Your task to perform on an android device: Search for "beats solo 3" on costco, select the first entry, and add it to the cart. Image 0: 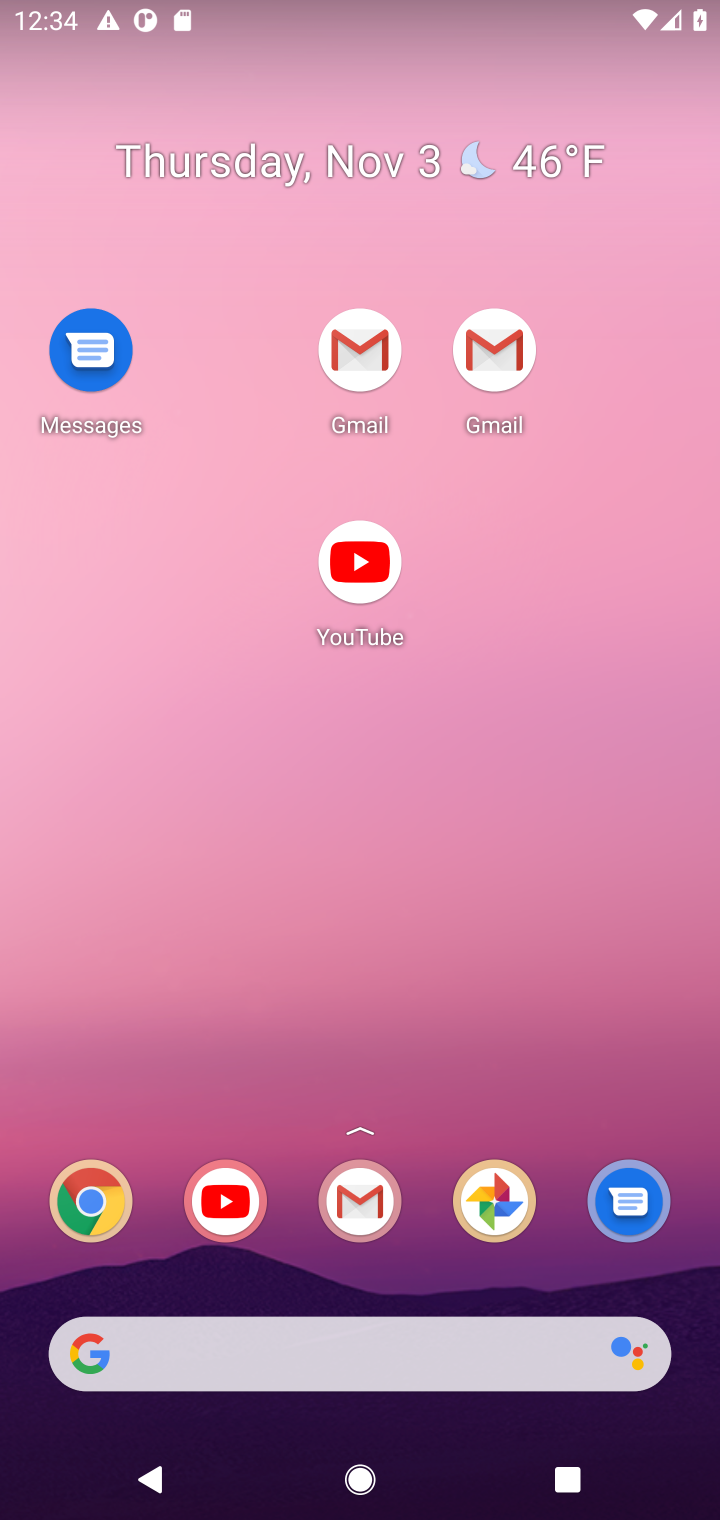
Step 0: drag from (421, 1285) to (487, 203)
Your task to perform on an android device: Search for "beats solo 3" on costco, select the first entry, and add it to the cart. Image 1: 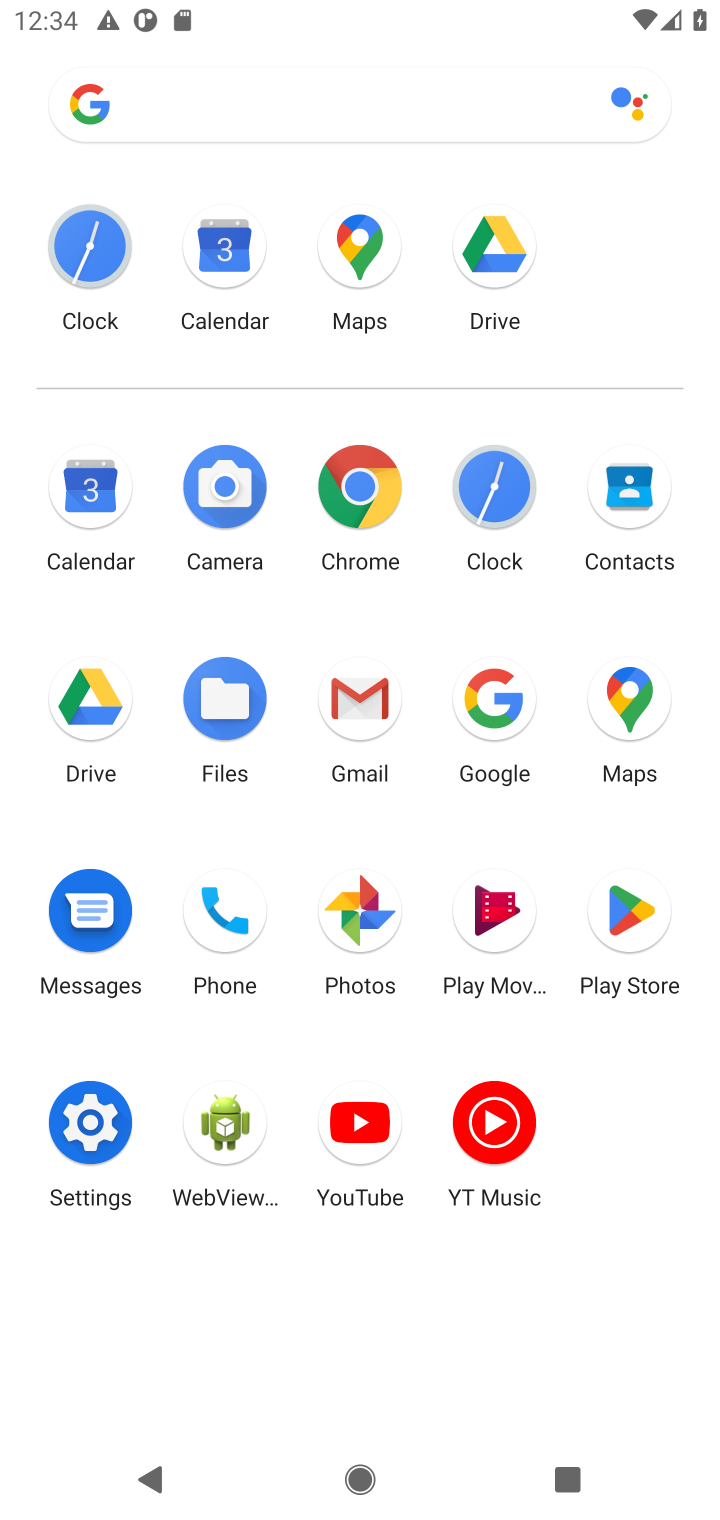
Step 1: click (357, 489)
Your task to perform on an android device: Search for "beats solo 3" on costco, select the first entry, and add it to the cart. Image 2: 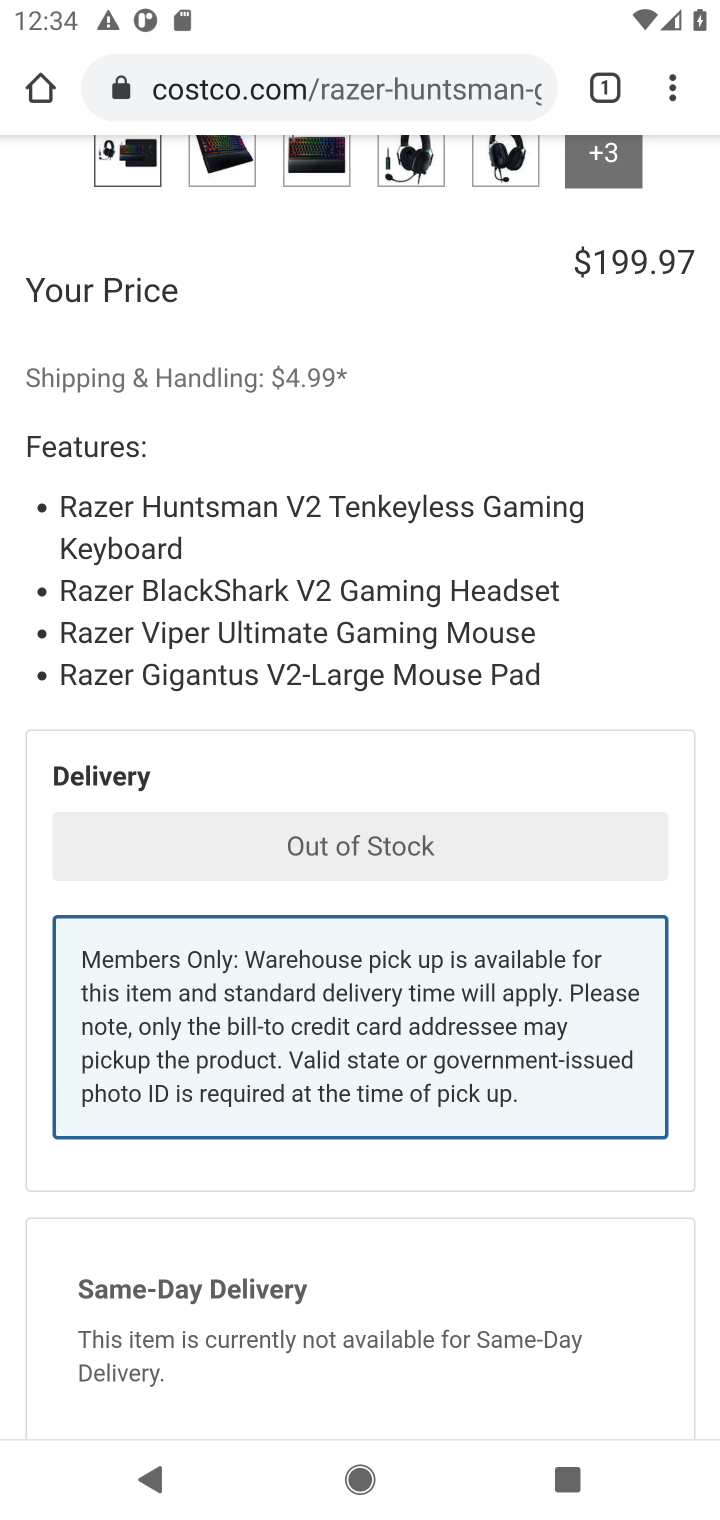
Step 2: click (384, 98)
Your task to perform on an android device: Search for "beats solo 3" on costco, select the first entry, and add it to the cart. Image 3: 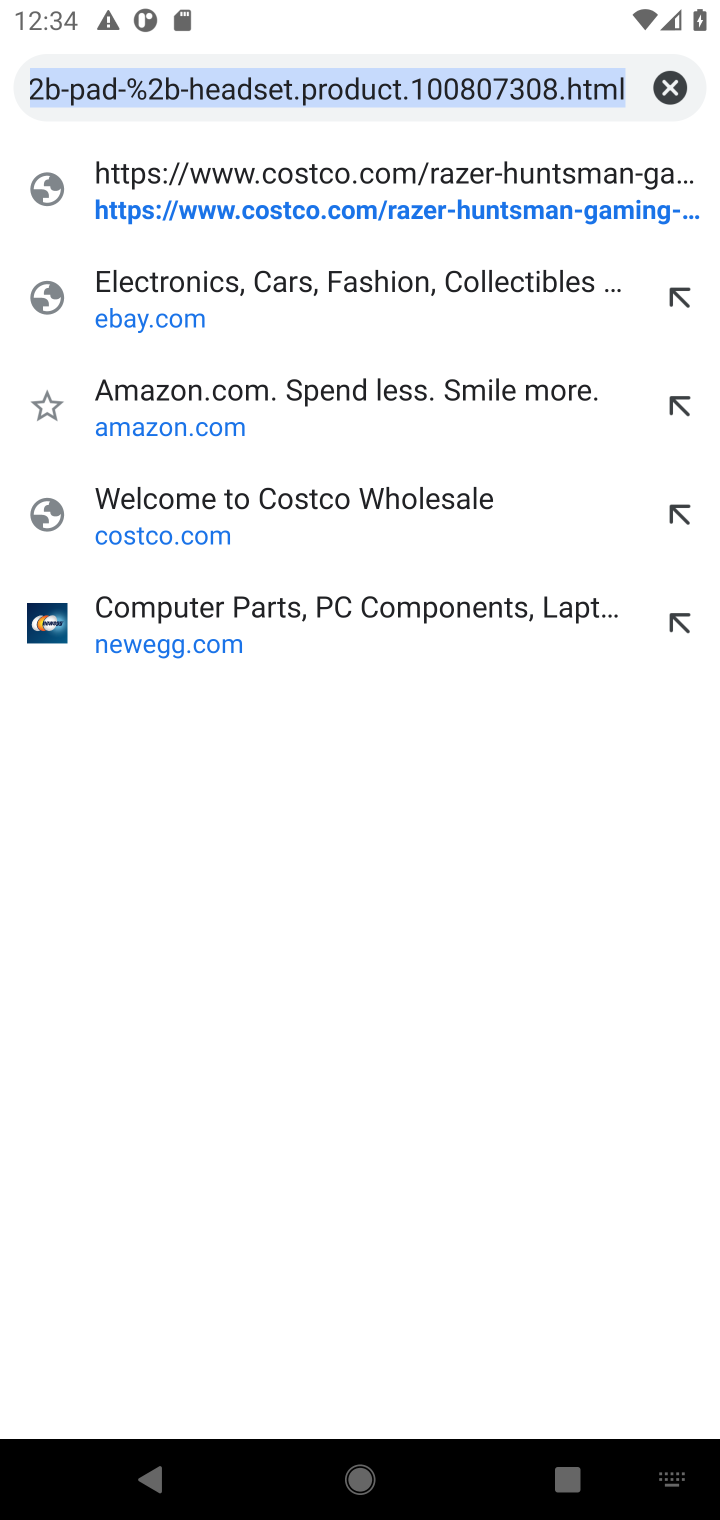
Step 3: type "costco.com"
Your task to perform on an android device: Search for "beats solo 3" on costco, select the first entry, and add it to the cart. Image 4: 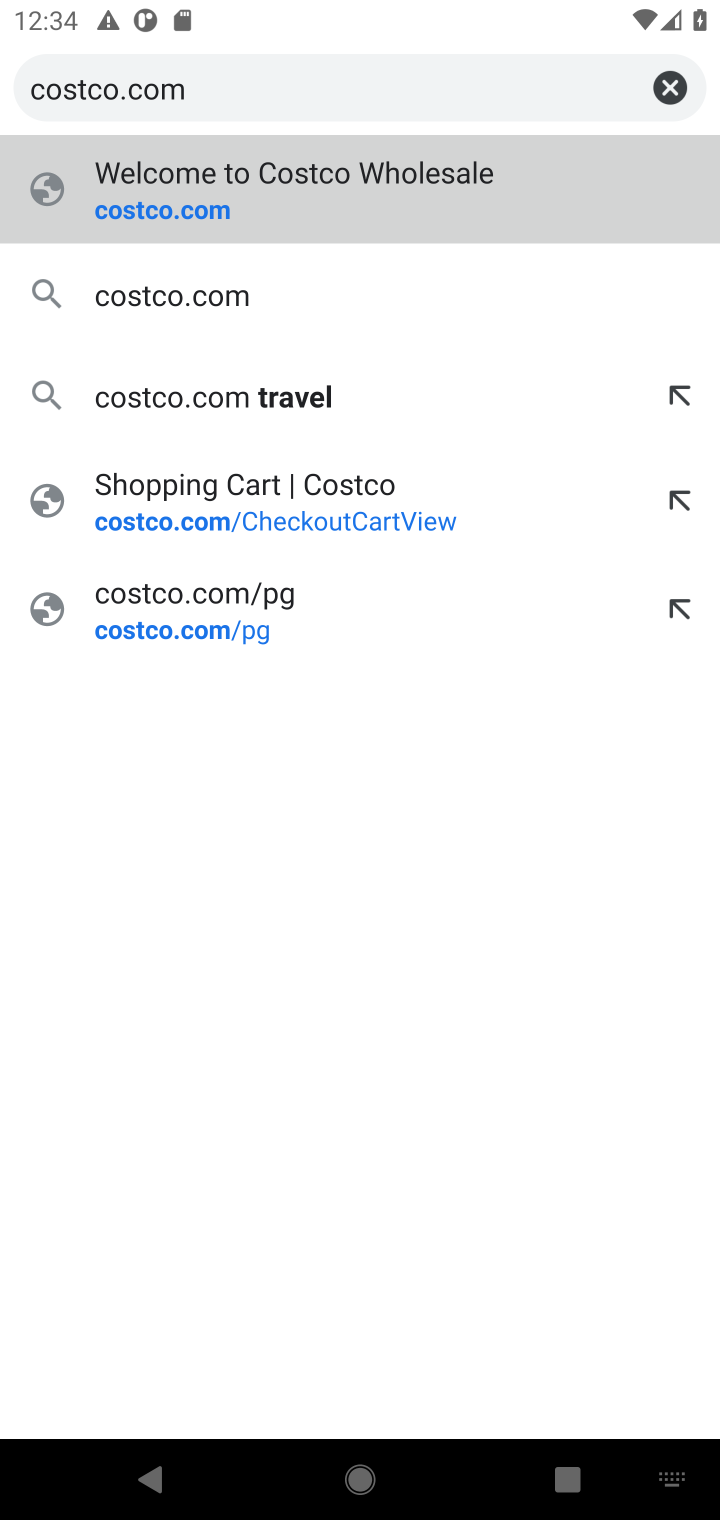
Step 4: press enter
Your task to perform on an android device: Search for "beats solo 3" on costco, select the first entry, and add it to the cart. Image 5: 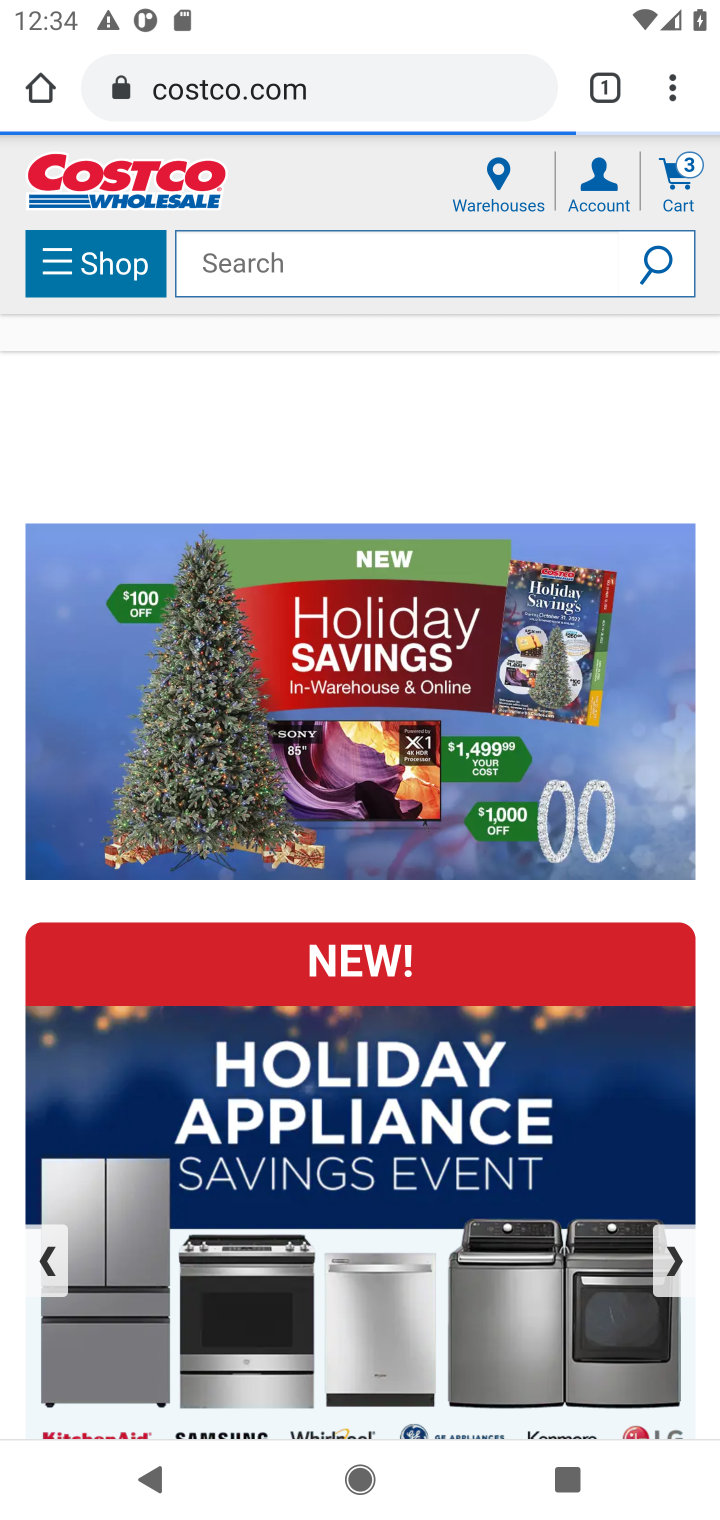
Step 5: click (367, 272)
Your task to perform on an android device: Search for "beats solo 3" on costco, select the first entry, and add it to the cart. Image 6: 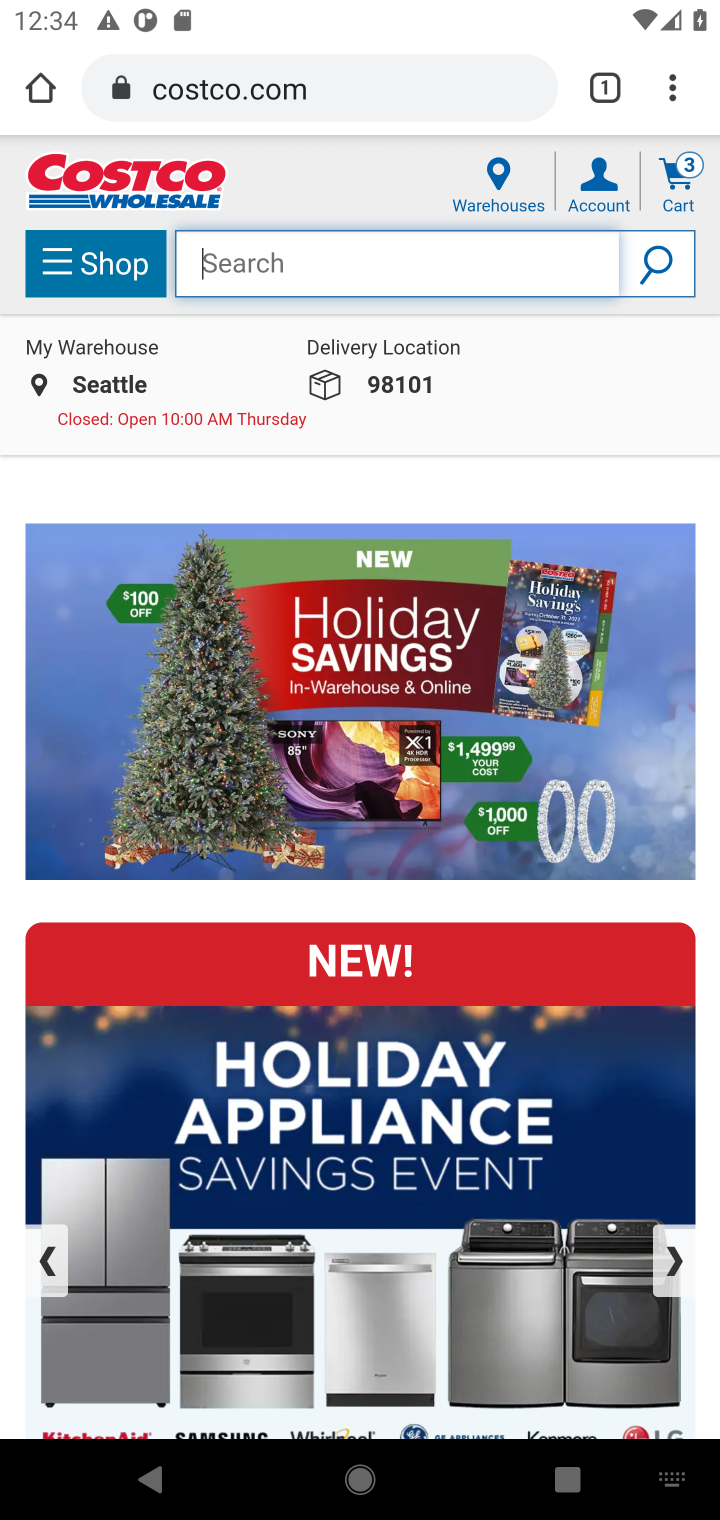
Step 6: type "beats solo 3"
Your task to perform on an android device: Search for "beats solo 3" on costco, select the first entry, and add it to the cart. Image 7: 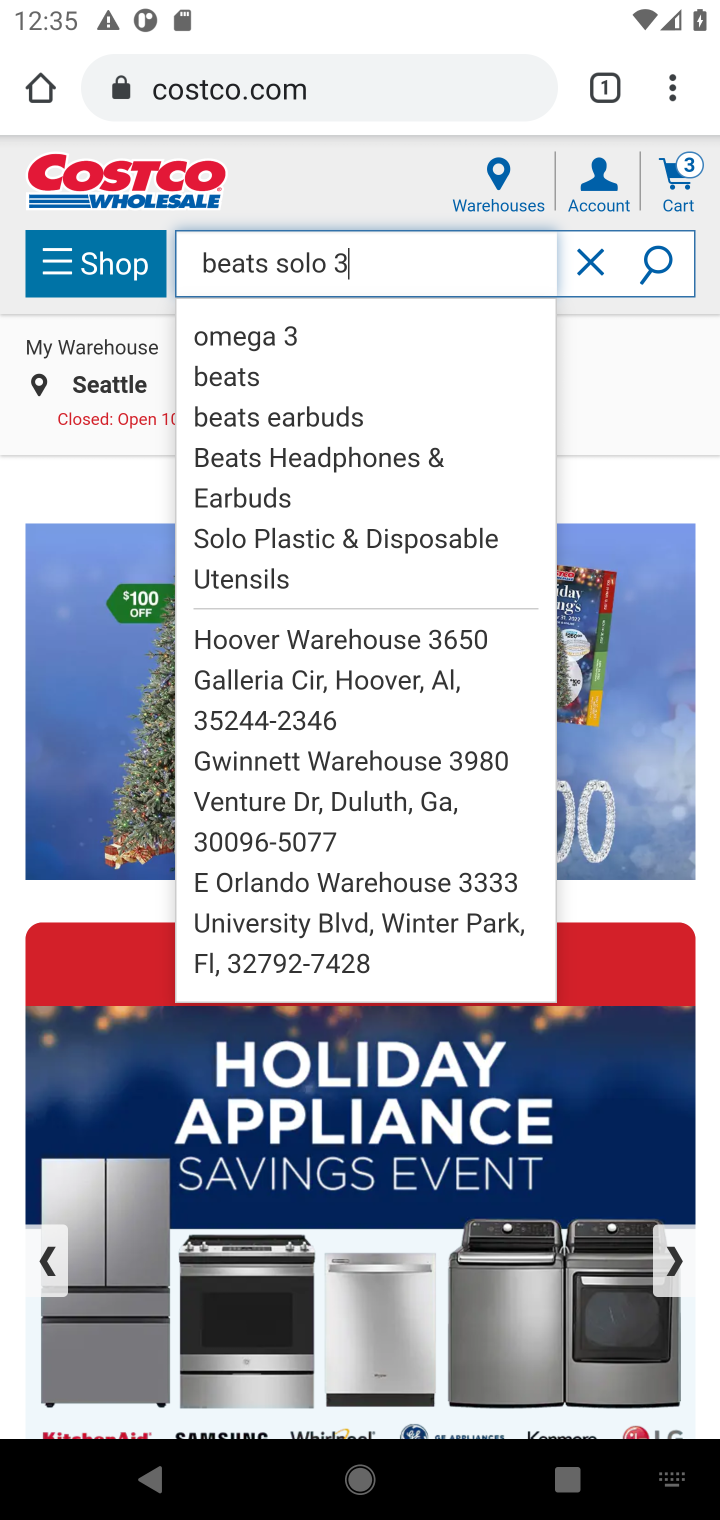
Step 7: press enter
Your task to perform on an android device: Search for "beats solo 3" on costco, select the first entry, and add it to the cart. Image 8: 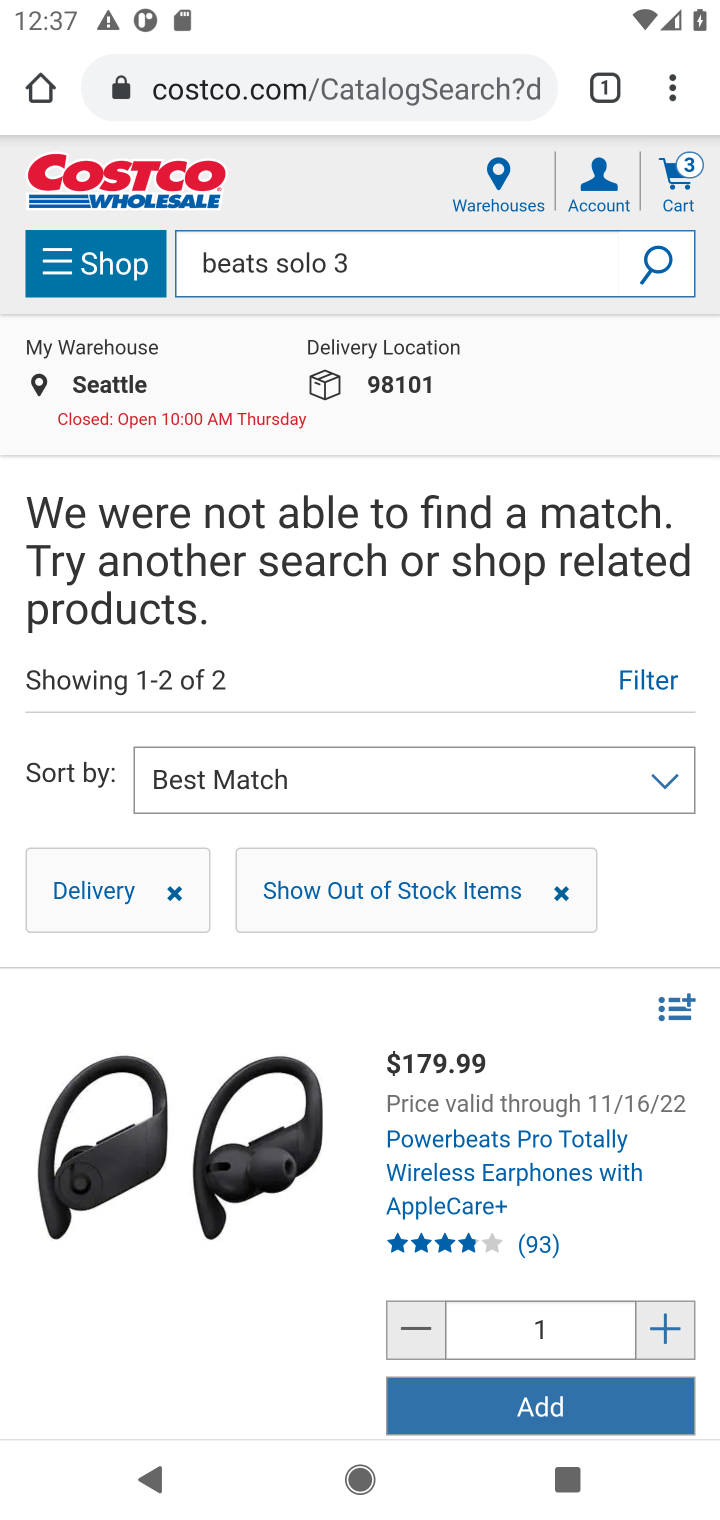
Step 8: task complete